Your task to perform on an android device: refresh tabs in the chrome app Image 0: 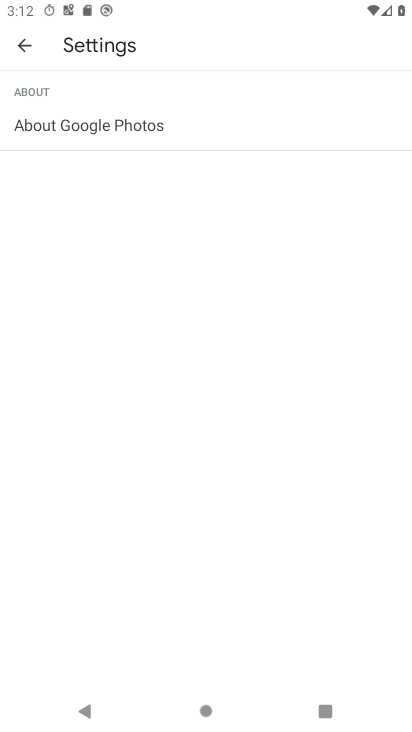
Step 0: press home button
Your task to perform on an android device: refresh tabs in the chrome app Image 1: 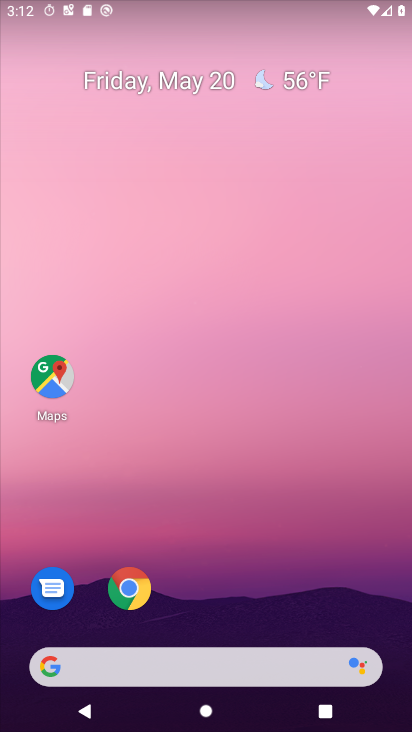
Step 1: click (124, 590)
Your task to perform on an android device: refresh tabs in the chrome app Image 2: 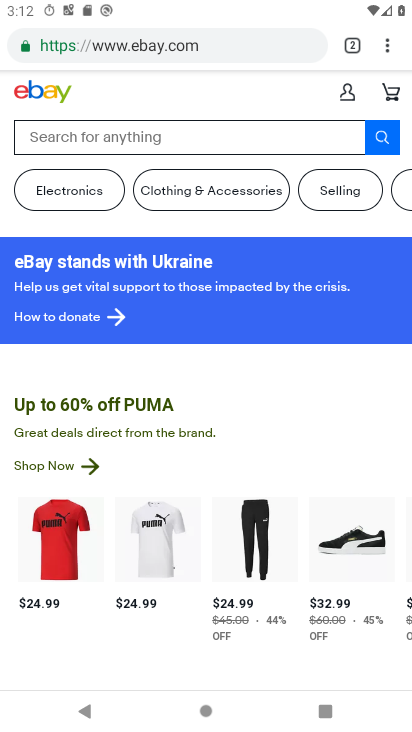
Step 2: click (393, 52)
Your task to perform on an android device: refresh tabs in the chrome app Image 3: 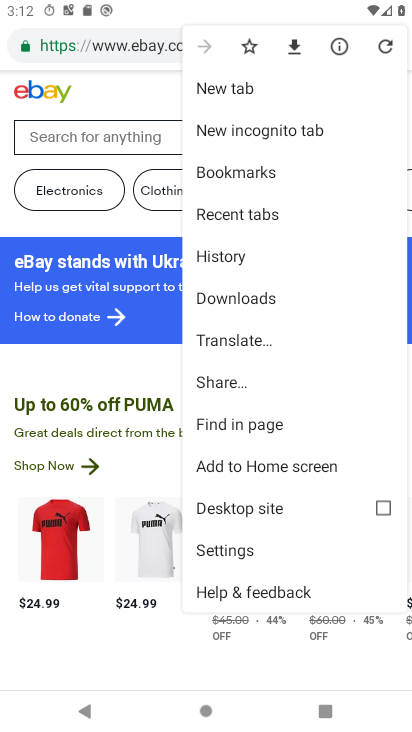
Step 3: click (384, 56)
Your task to perform on an android device: refresh tabs in the chrome app Image 4: 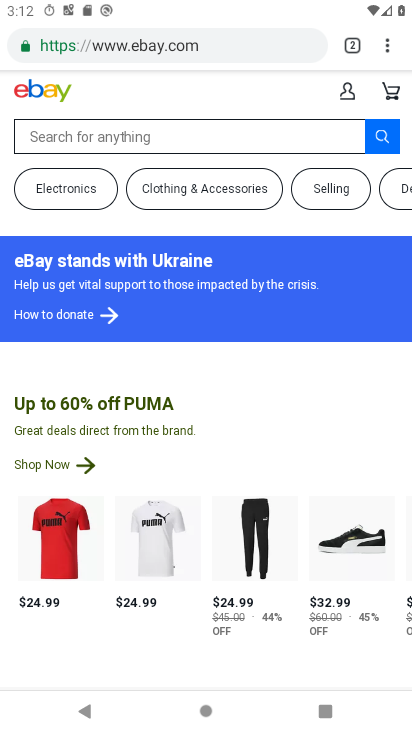
Step 4: task complete